Your task to perform on an android device: Open Google Chrome Image 0: 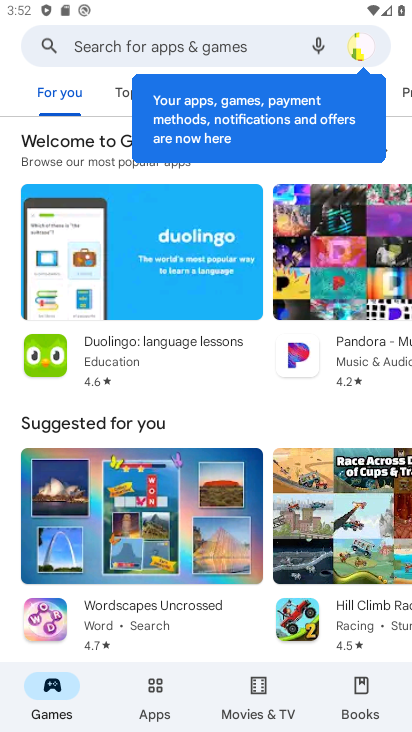
Step 0: press home button
Your task to perform on an android device: Open Google Chrome Image 1: 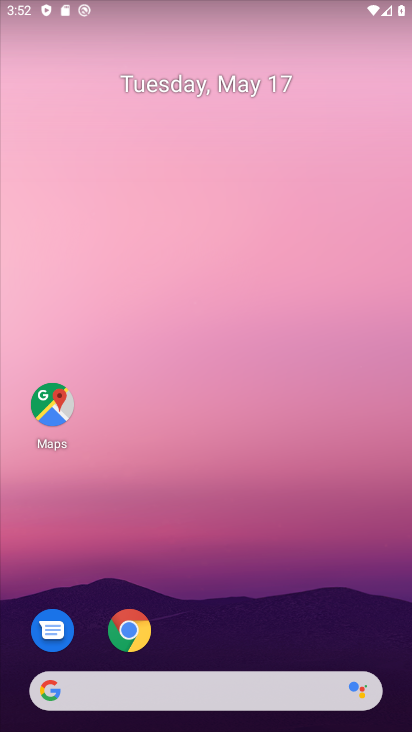
Step 1: click (123, 632)
Your task to perform on an android device: Open Google Chrome Image 2: 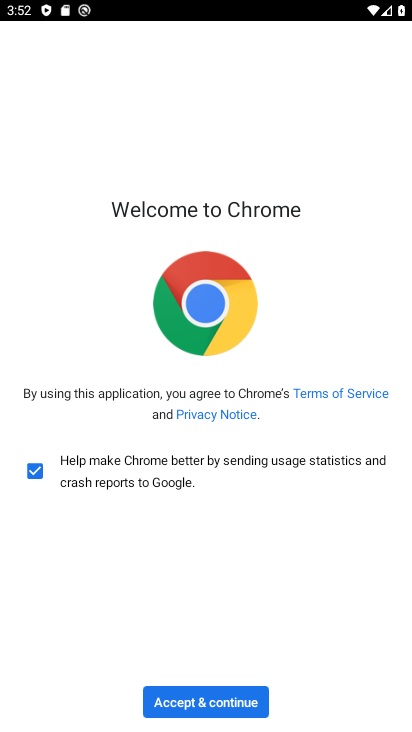
Step 2: click (203, 699)
Your task to perform on an android device: Open Google Chrome Image 3: 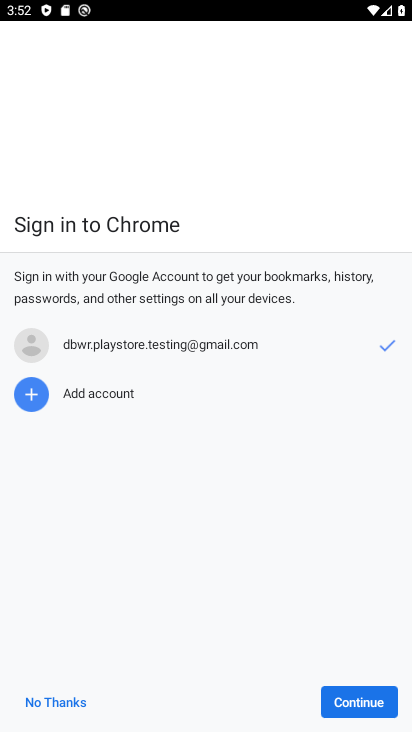
Step 3: click (360, 698)
Your task to perform on an android device: Open Google Chrome Image 4: 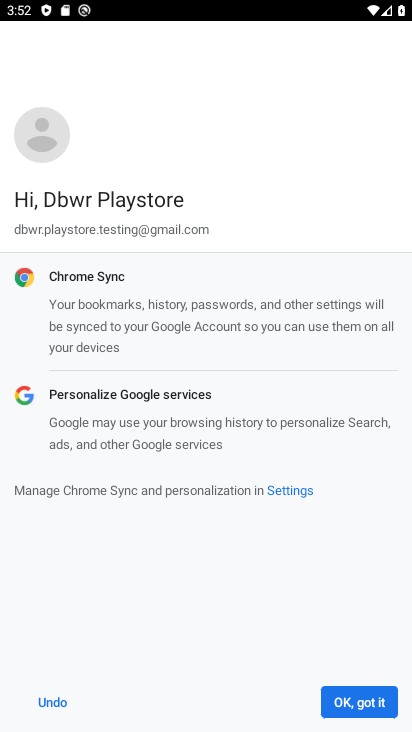
Step 4: click (362, 698)
Your task to perform on an android device: Open Google Chrome Image 5: 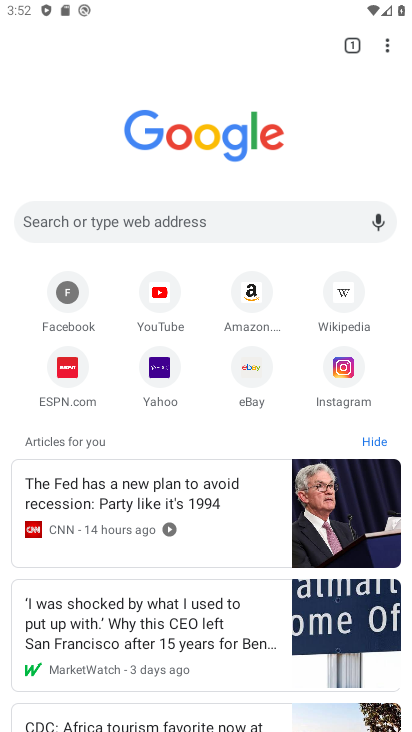
Step 5: task complete